Your task to perform on an android device: Search for duracell triple a on walmart, select the first entry, add it to the cart, then select checkout. Image 0: 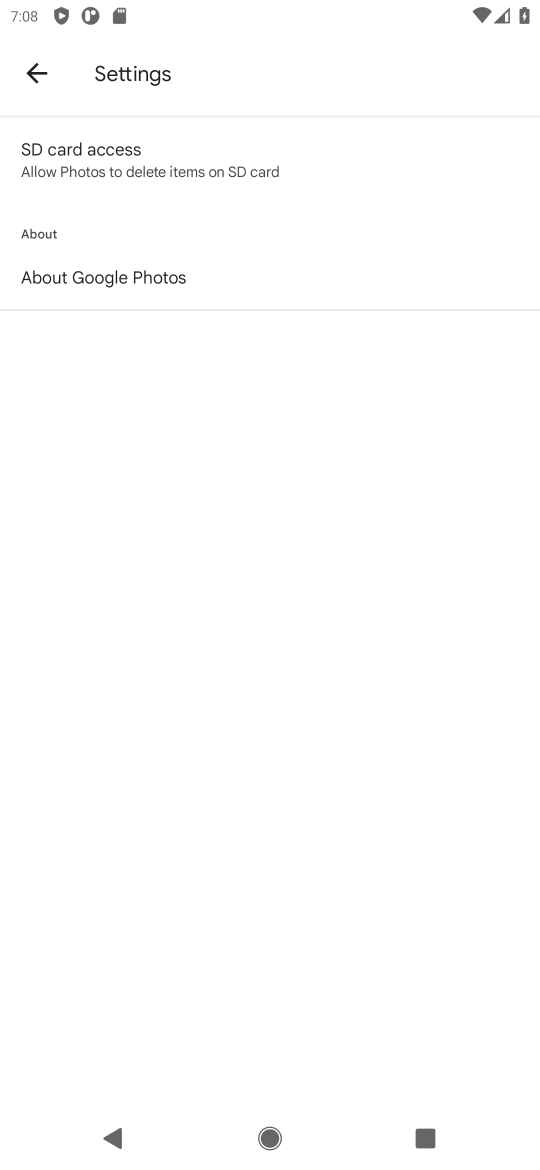
Step 0: press home button
Your task to perform on an android device: Search for duracell triple a on walmart, select the first entry, add it to the cart, then select checkout. Image 1: 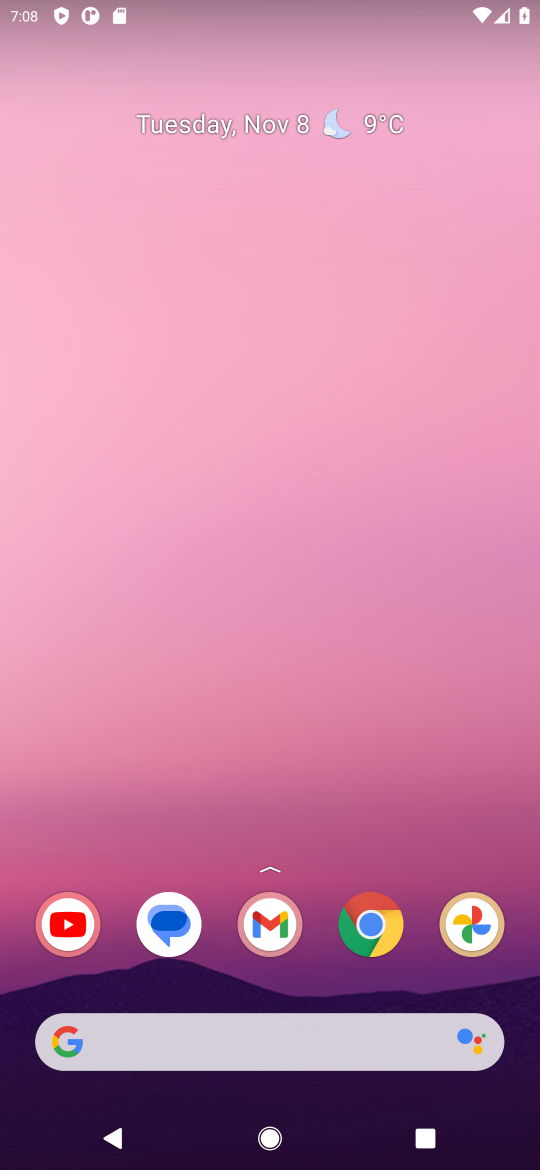
Step 1: click (192, 1056)
Your task to perform on an android device: Search for duracell triple a on walmart, select the first entry, add it to the cart, then select checkout. Image 2: 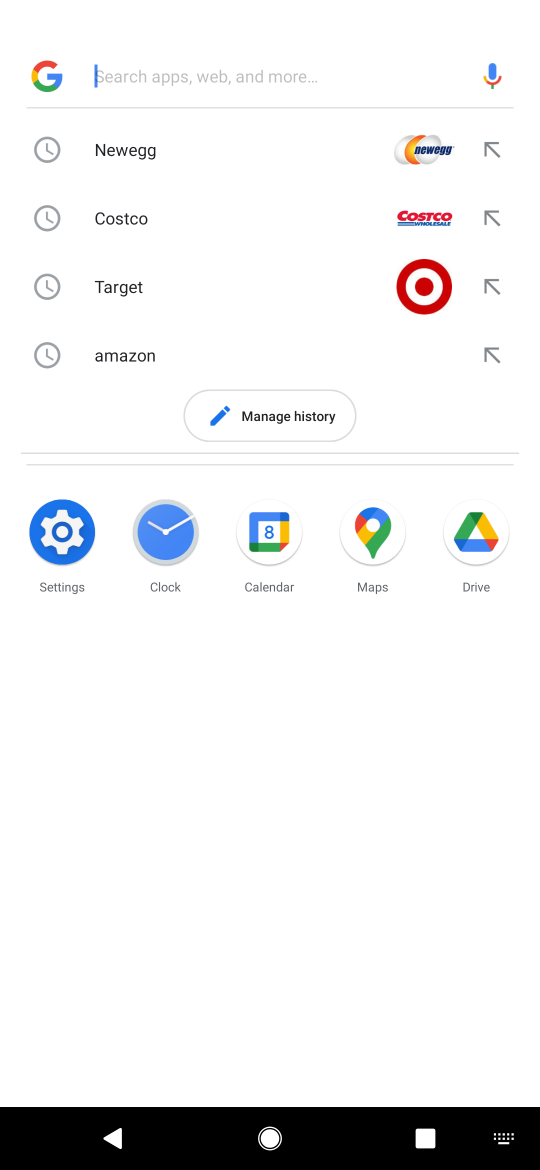
Step 2: type "walmart"
Your task to perform on an android device: Search for duracell triple a on walmart, select the first entry, add it to the cart, then select checkout. Image 3: 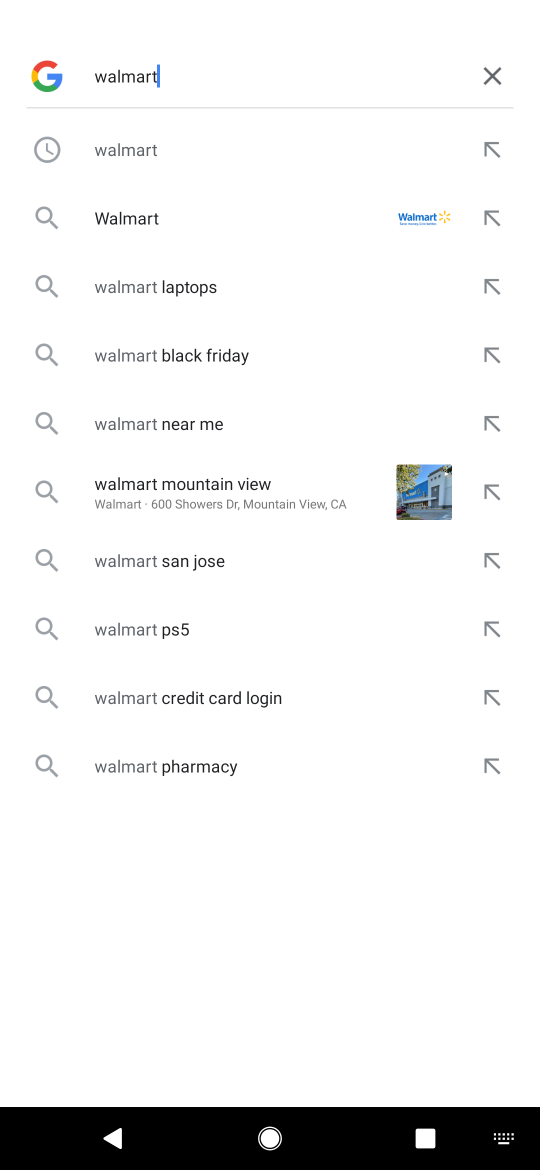
Step 3: click (232, 213)
Your task to perform on an android device: Search for duracell triple a on walmart, select the first entry, add it to the cart, then select checkout. Image 4: 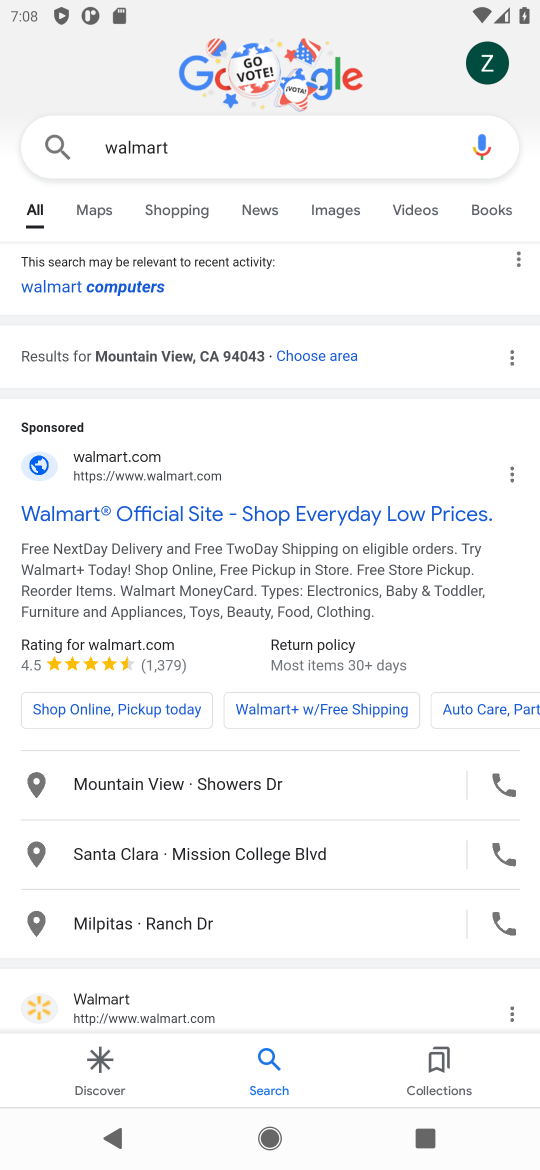
Step 4: click (82, 486)
Your task to perform on an android device: Search for duracell triple a on walmart, select the first entry, add it to the cart, then select checkout. Image 5: 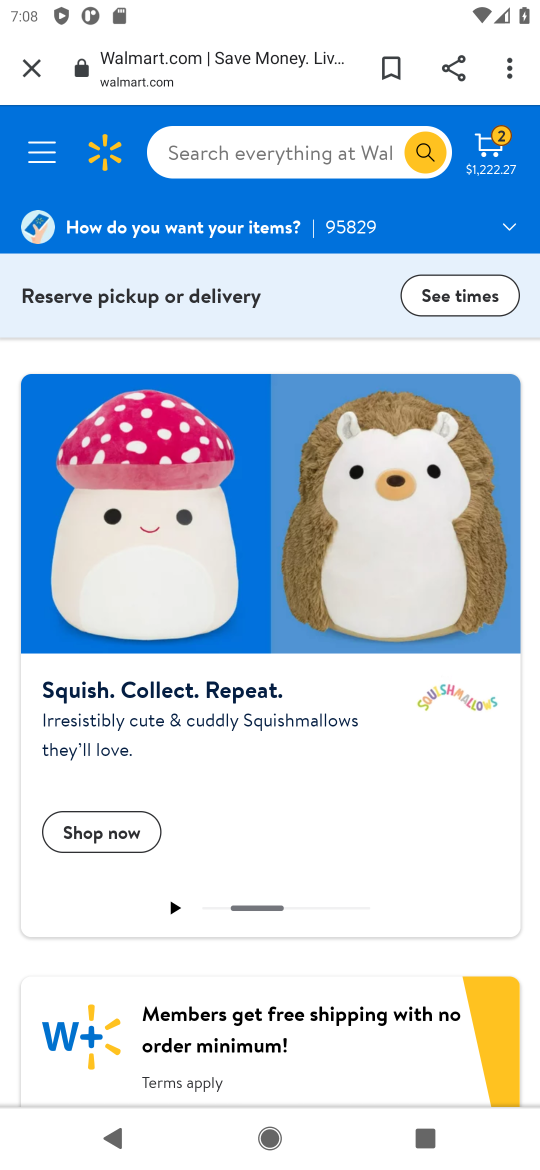
Step 5: click (216, 154)
Your task to perform on an android device: Search for duracell triple a on walmart, select the first entry, add it to the cart, then select checkout. Image 6: 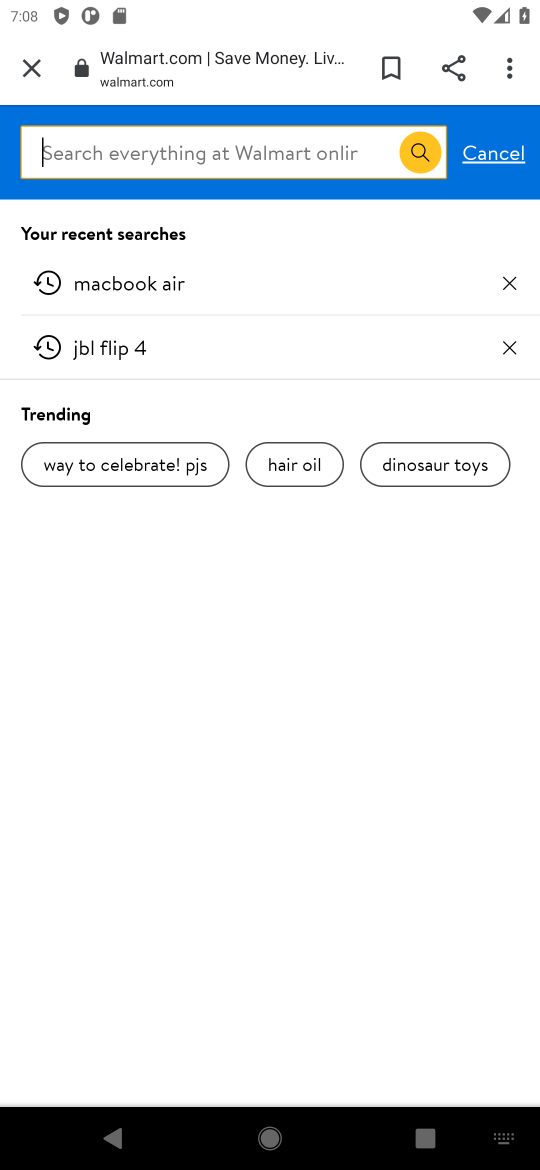
Step 6: type "duracell triple a"
Your task to perform on an android device: Search for duracell triple a on walmart, select the first entry, add it to the cart, then select checkout. Image 7: 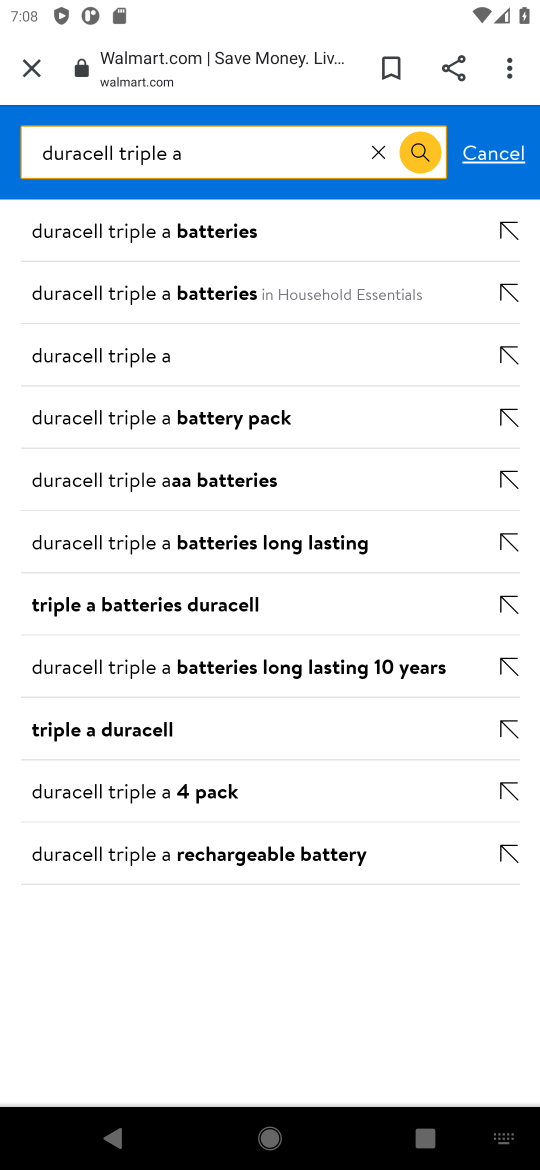
Step 7: click (179, 238)
Your task to perform on an android device: Search for duracell triple a on walmart, select the first entry, add it to the cart, then select checkout. Image 8: 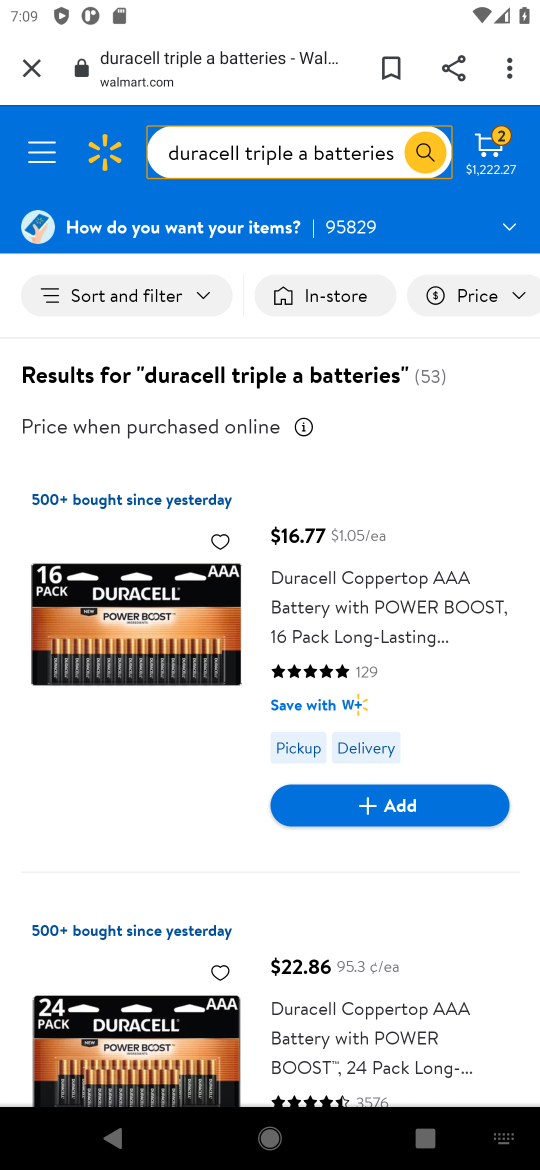
Step 8: click (390, 814)
Your task to perform on an android device: Search for duracell triple a on walmart, select the first entry, add it to the cart, then select checkout. Image 9: 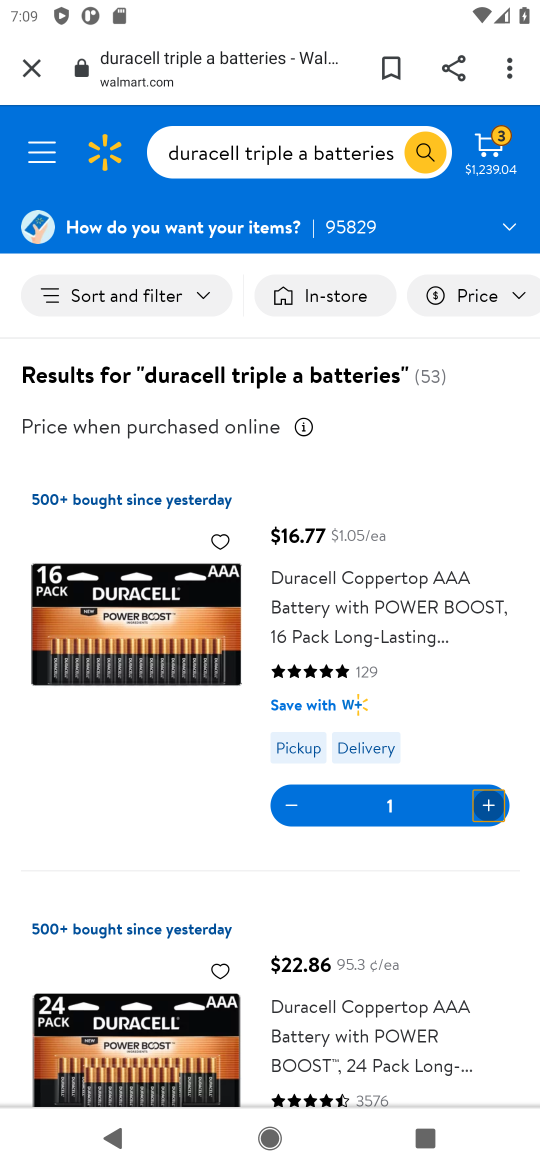
Step 9: click (496, 141)
Your task to perform on an android device: Search for duracell triple a on walmart, select the first entry, add it to the cart, then select checkout. Image 10: 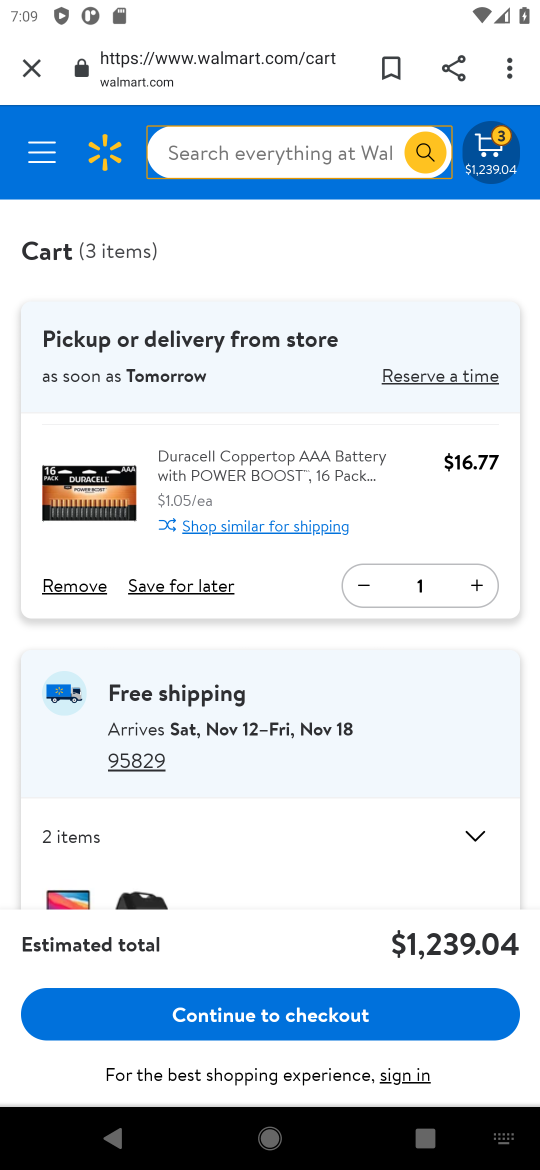
Step 10: click (264, 1020)
Your task to perform on an android device: Search for duracell triple a on walmart, select the first entry, add it to the cart, then select checkout. Image 11: 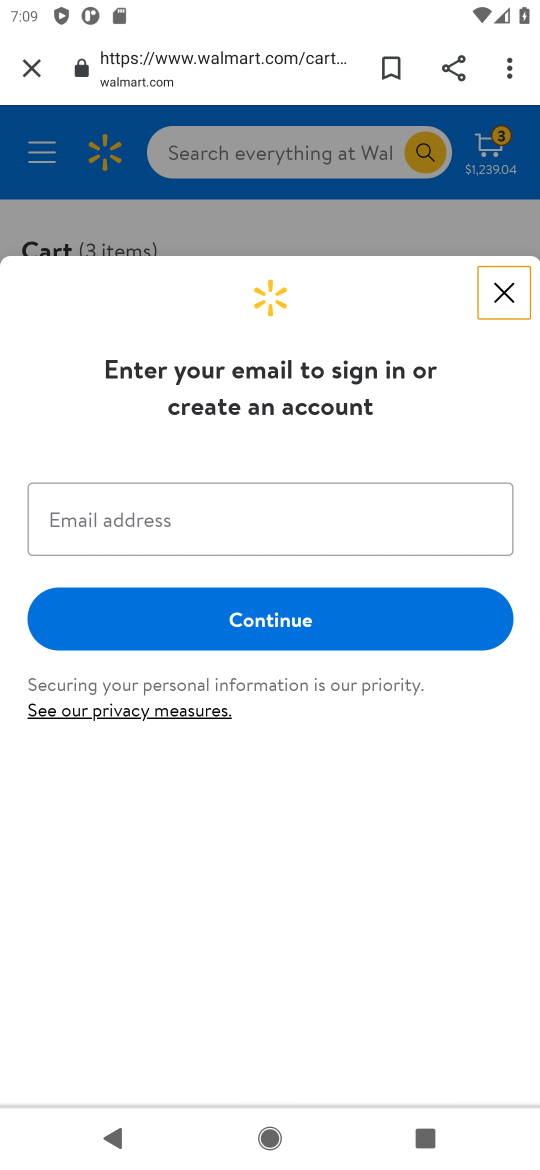
Step 11: task complete